Your task to perform on an android device: Open location settings Image 0: 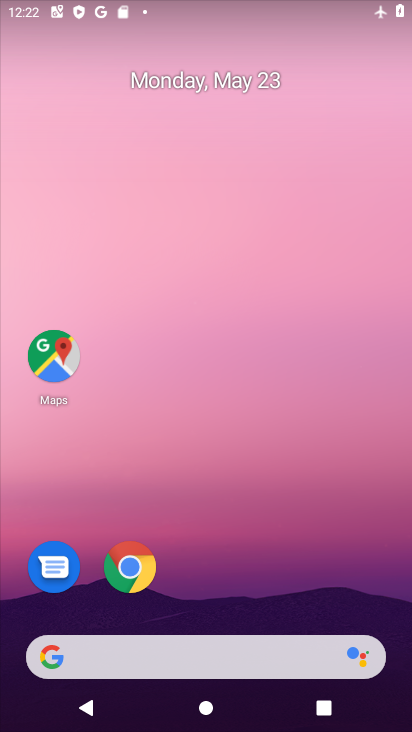
Step 0: drag from (272, 622) to (286, 72)
Your task to perform on an android device: Open location settings Image 1: 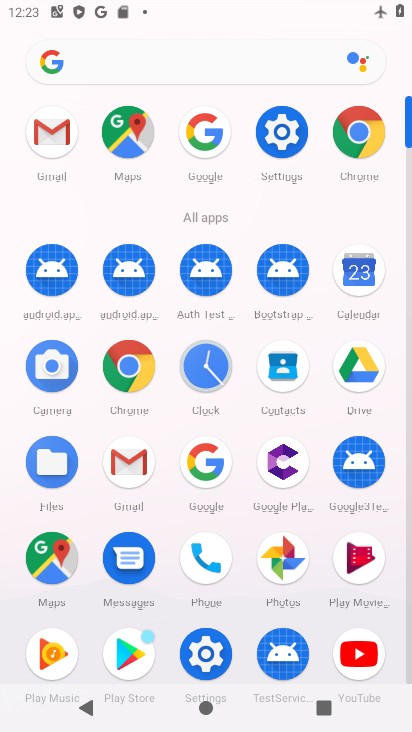
Step 1: click (285, 124)
Your task to perform on an android device: Open location settings Image 2: 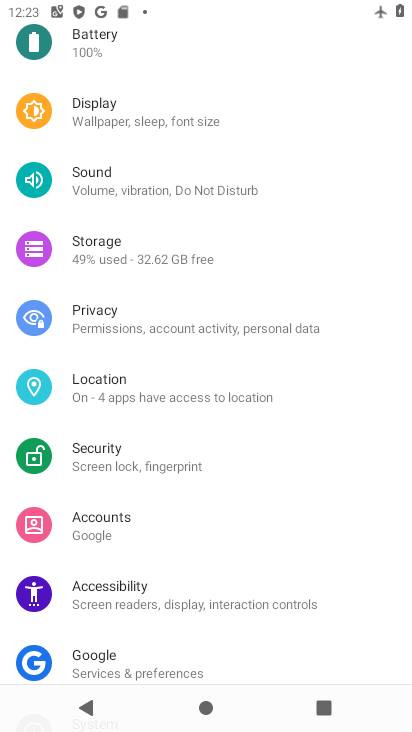
Step 2: click (181, 392)
Your task to perform on an android device: Open location settings Image 3: 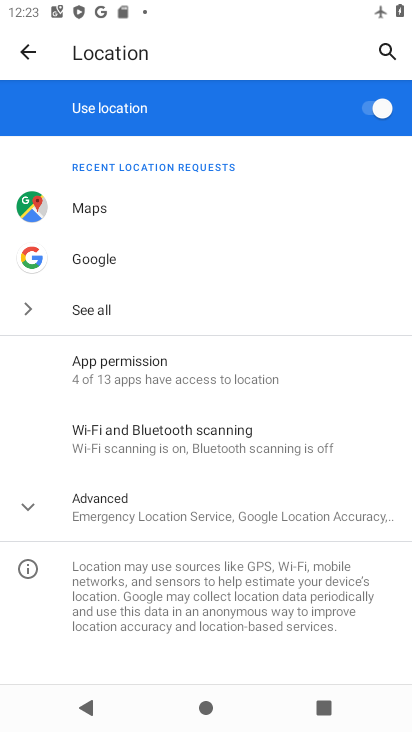
Step 3: click (187, 509)
Your task to perform on an android device: Open location settings Image 4: 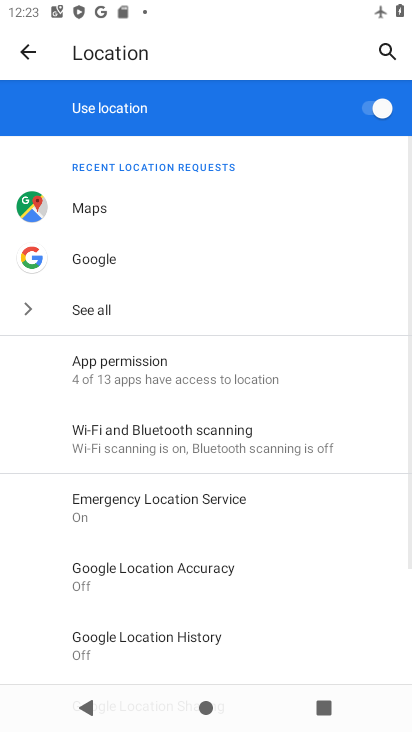
Step 4: task complete